Your task to perform on an android device: allow cookies in the chrome app Image 0: 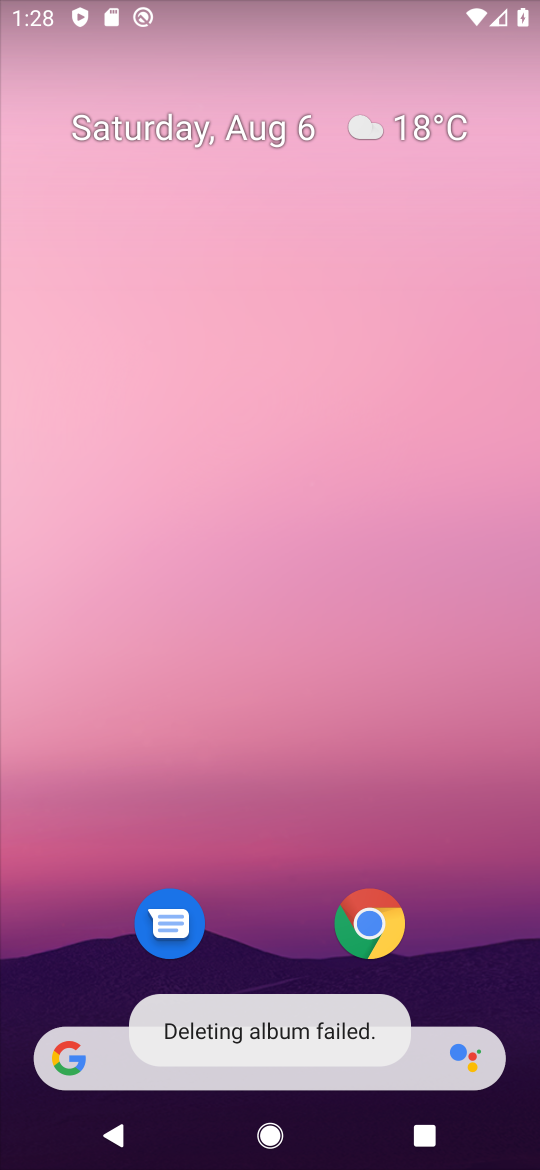
Step 0: click (204, 212)
Your task to perform on an android device: allow cookies in the chrome app Image 1: 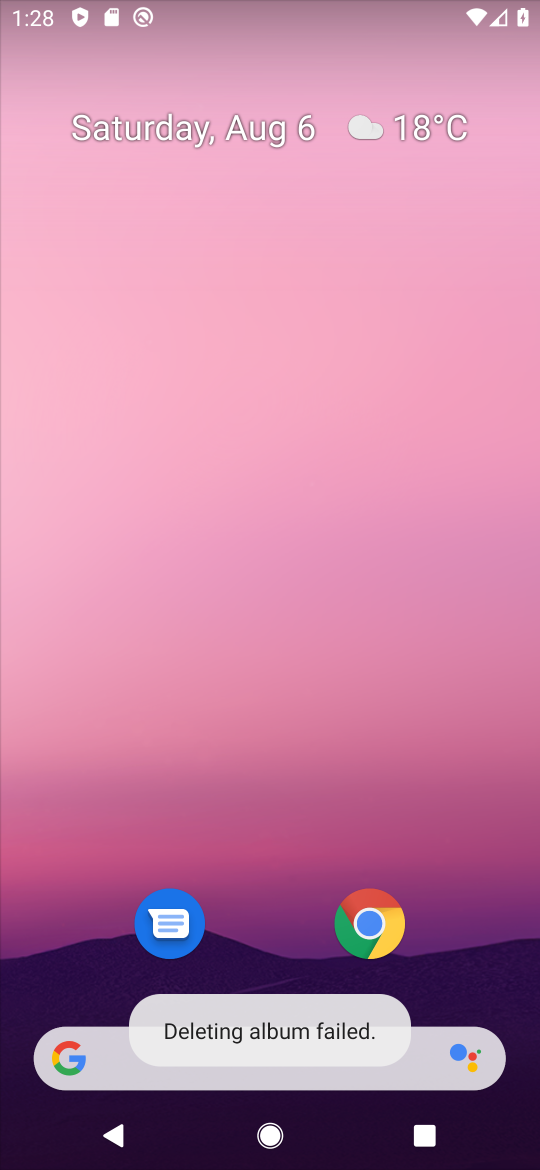
Step 1: drag from (266, 954) to (285, 240)
Your task to perform on an android device: allow cookies in the chrome app Image 2: 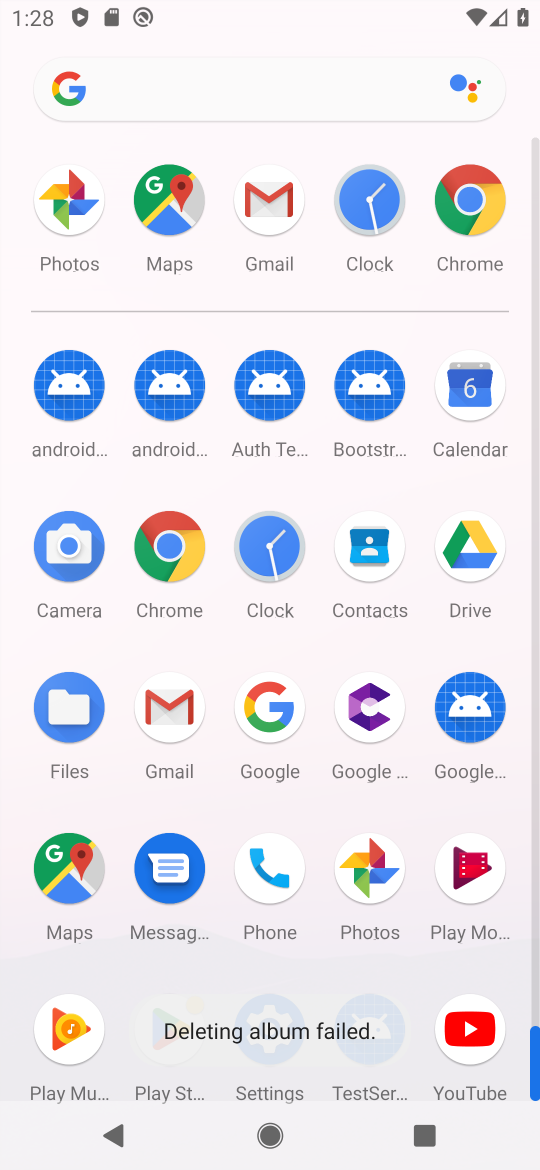
Step 2: click (168, 535)
Your task to perform on an android device: allow cookies in the chrome app Image 3: 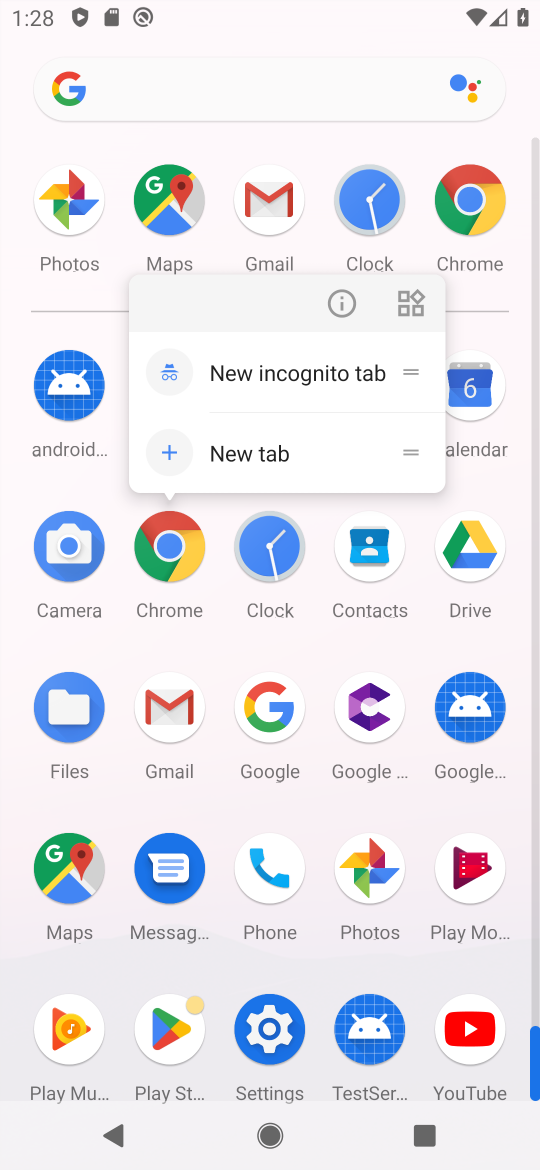
Step 3: click (345, 302)
Your task to perform on an android device: allow cookies in the chrome app Image 4: 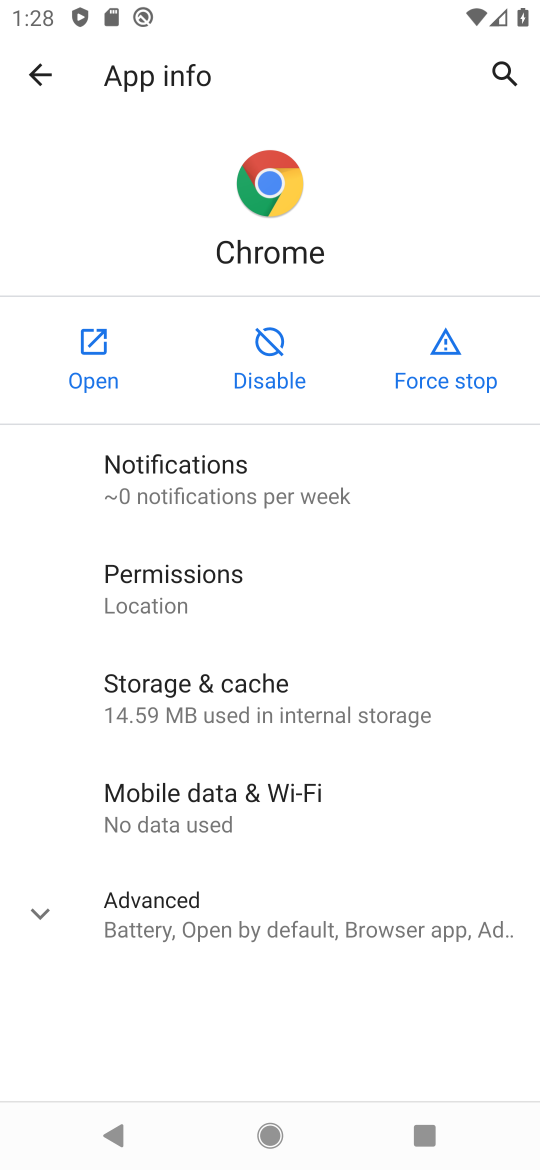
Step 4: click (119, 339)
Your task to perform on an android device: allow cookies in the chrome app Image 5: 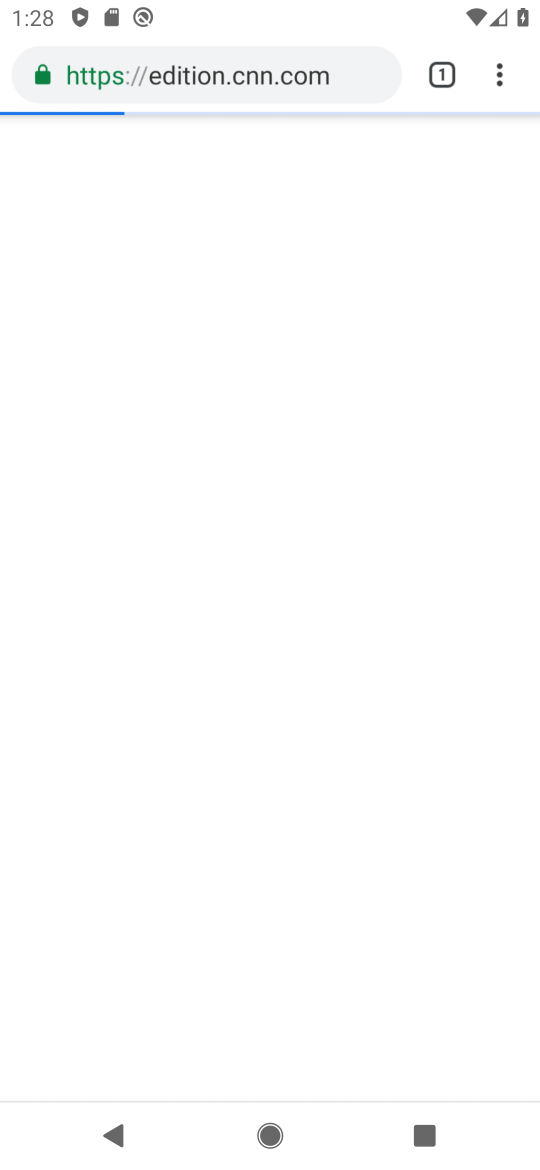
Step 5: drag from (252, 698) to (252, 483)
Your task to perform on an android device: allow cookies in the chrome app Image 6: 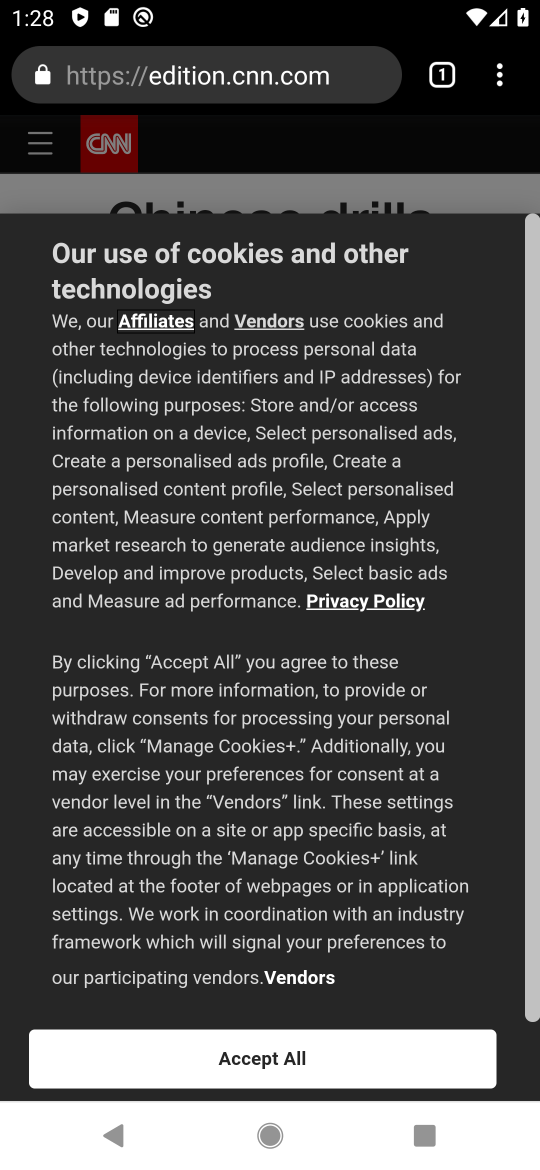
Step 6: drag from (497, 74) to (271, 972)
Your task to perform on an android device: allow cookies in the chrome app Image 7: 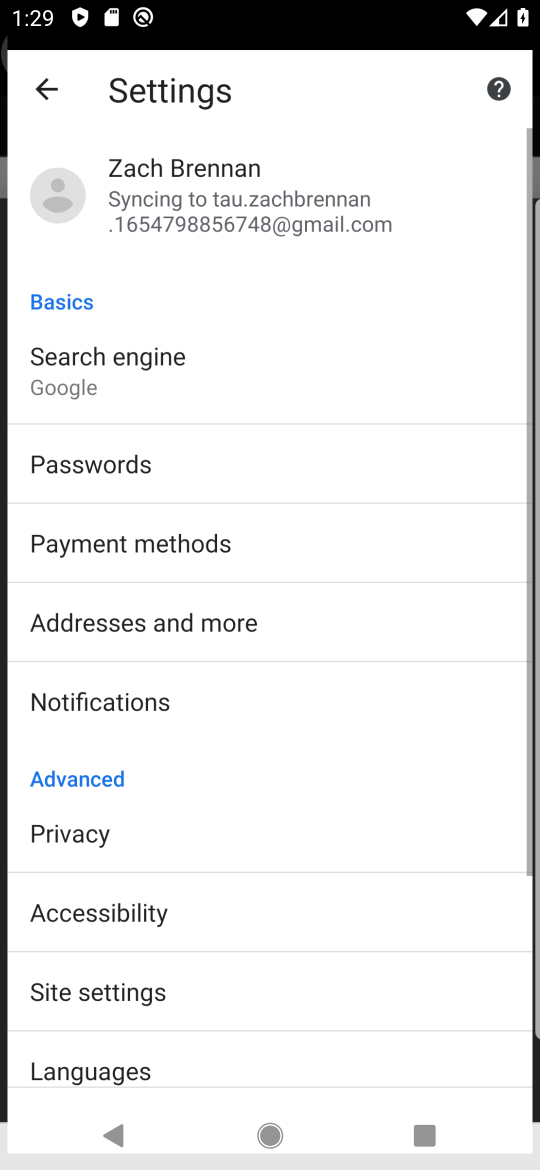
Step 7: drag from (266, 942) to (275, 446)
Your task to perform on an android device: allow cookies in the chrome app Image 8: 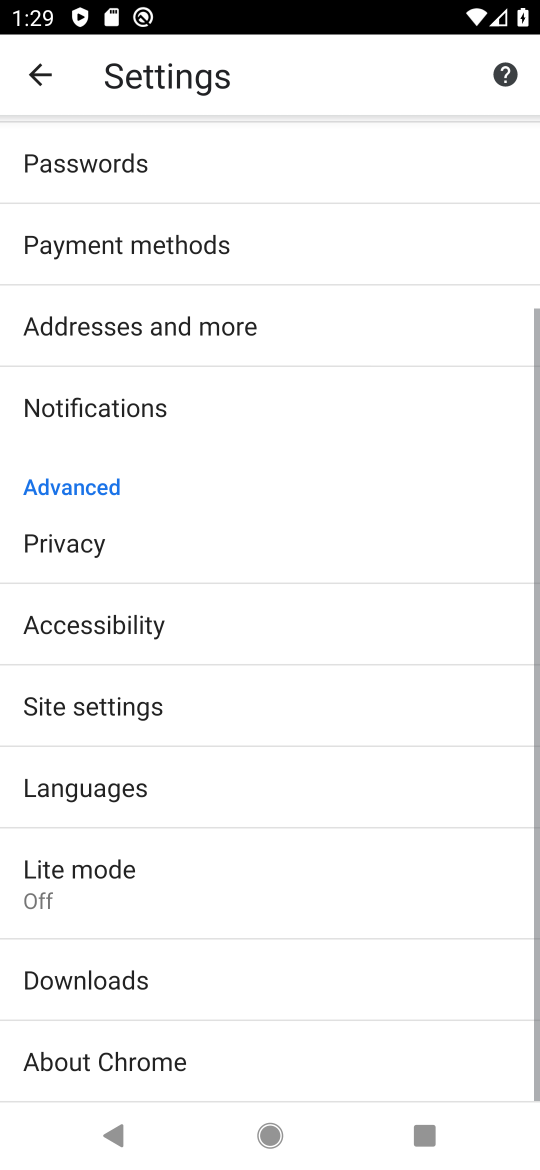
Step 8: drag from (223, 898) to (268, 532)
Your task to perform on an android device: allow cookies in the chrome app Image 9: 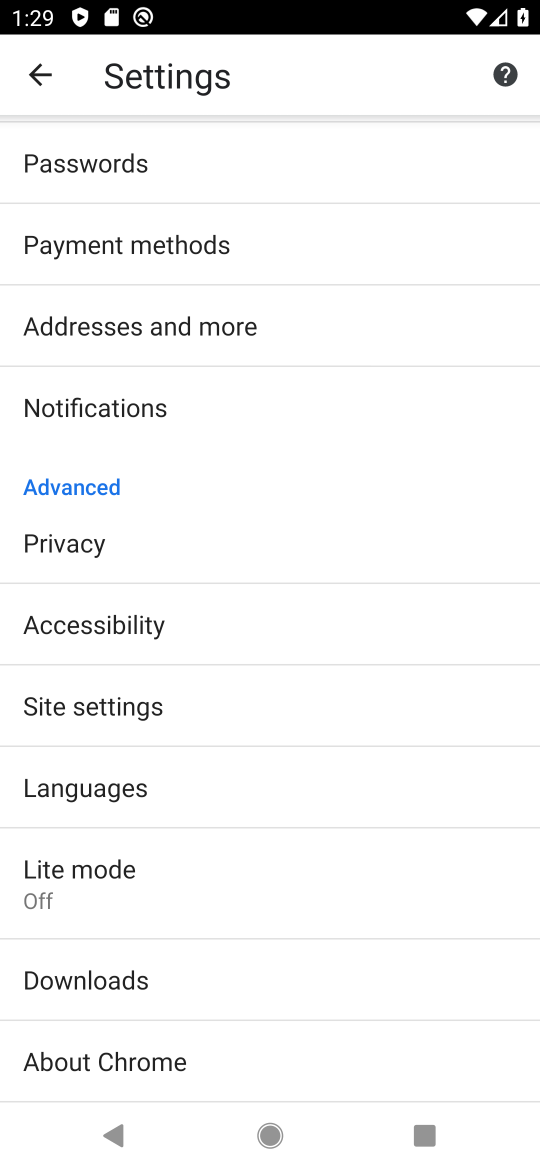
Step 9: click (151, 713)
Your task to perform on an android device: allow cookies in the chrome app Image 10: 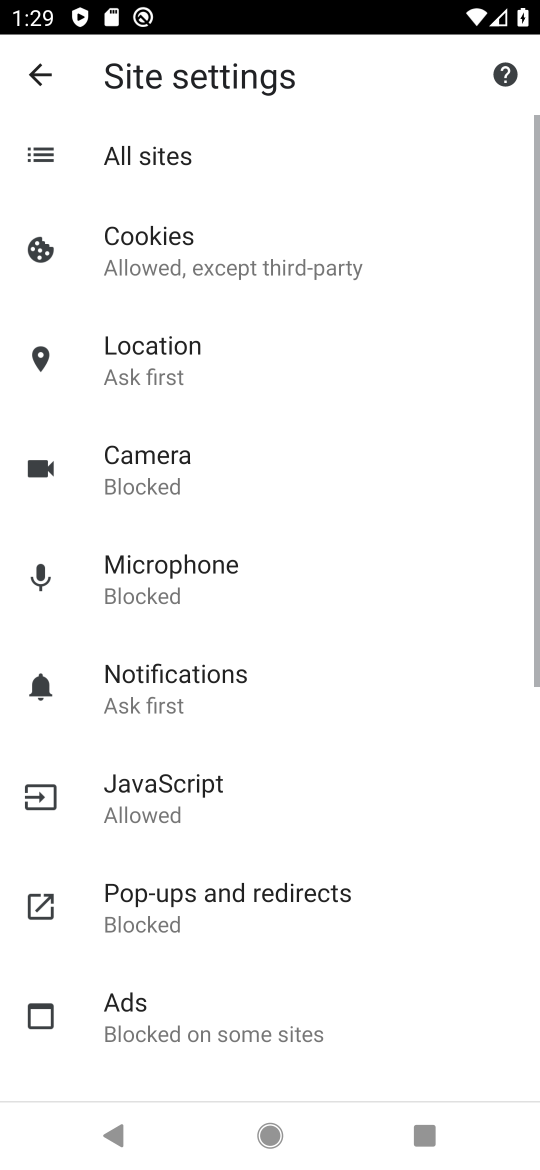
Step 10: drag from (293, 762) to (309, 368)
Your task to perform on an android device: allow cookies in the chrome app Image 11: 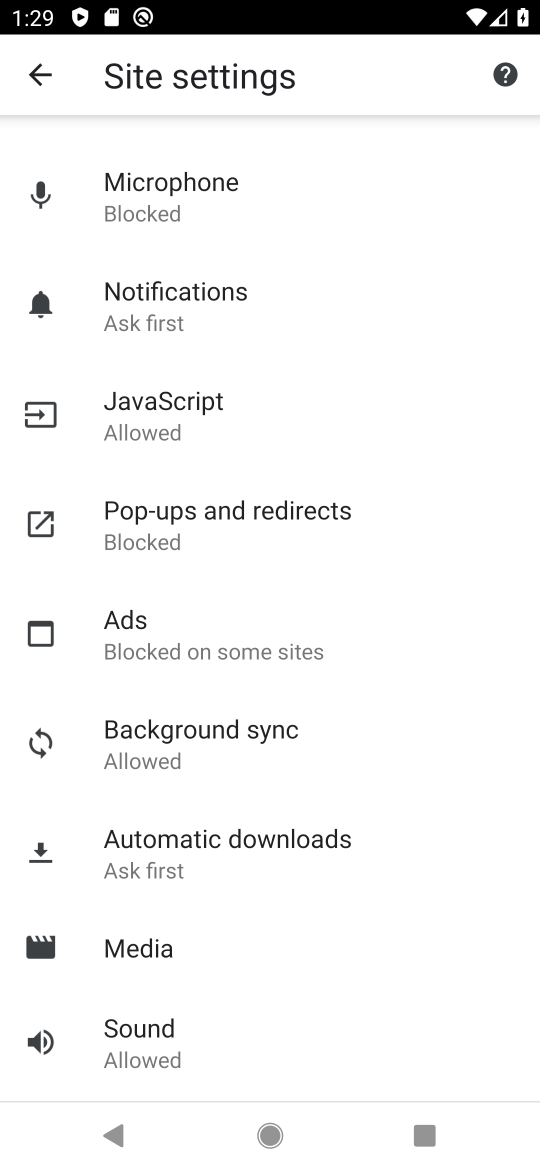
Step 11: drag from (271, 867) to (362, 357)
Your task to perform on an android device: allow cookies in the chrome app Image 12: 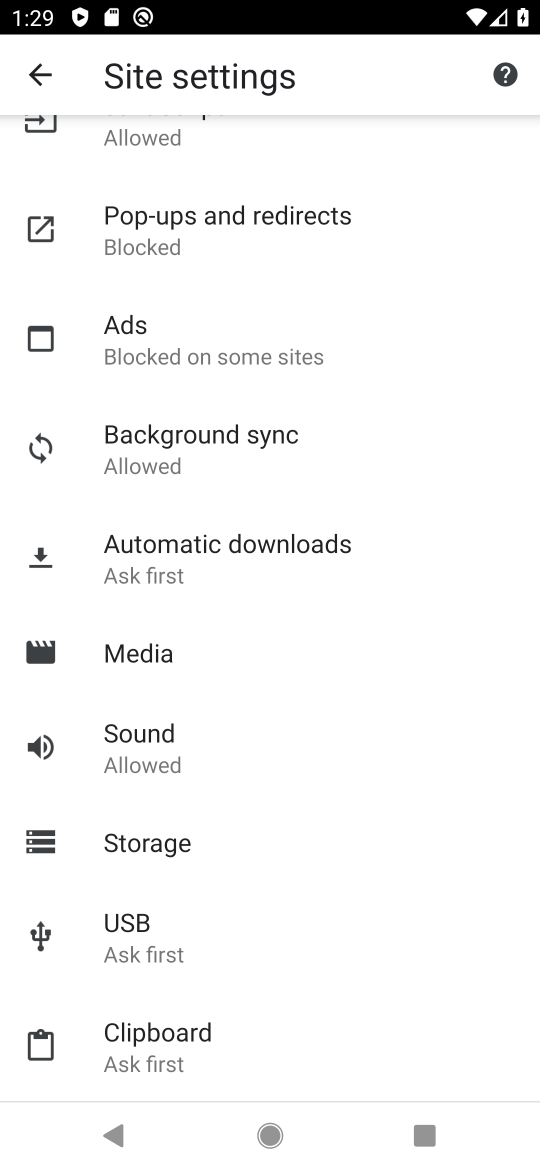
Step 12: drag from (302, 986) to (331, 568)
Your task to perform on an android device: allow cookies in the chrome app Image 13: 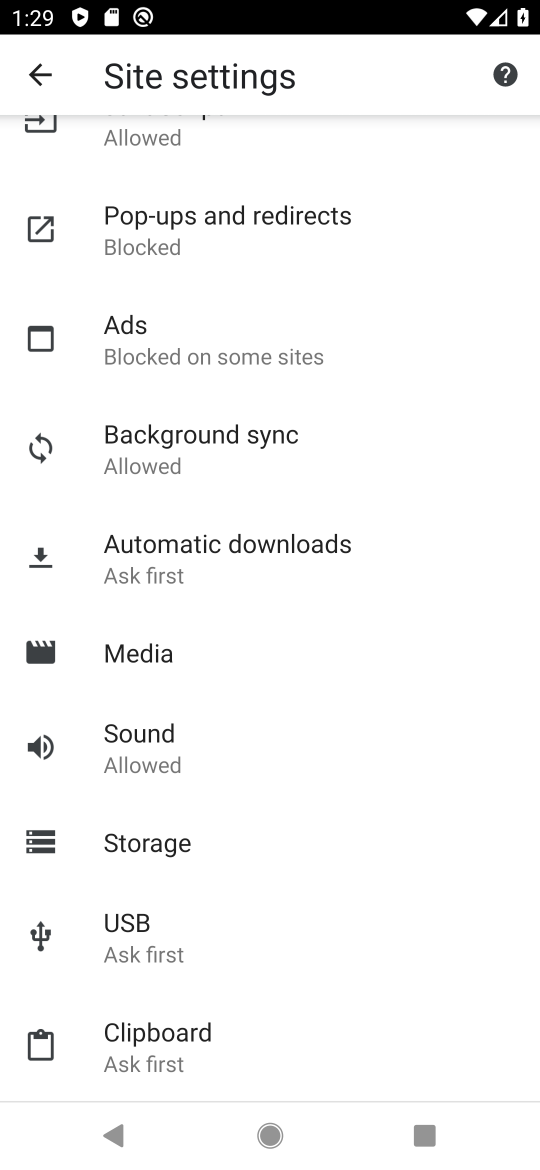
Step 13: drag from (317, 323) to (400, 1156)
Your task to perform on an android device: allow cookies in the chrome app Image 14: 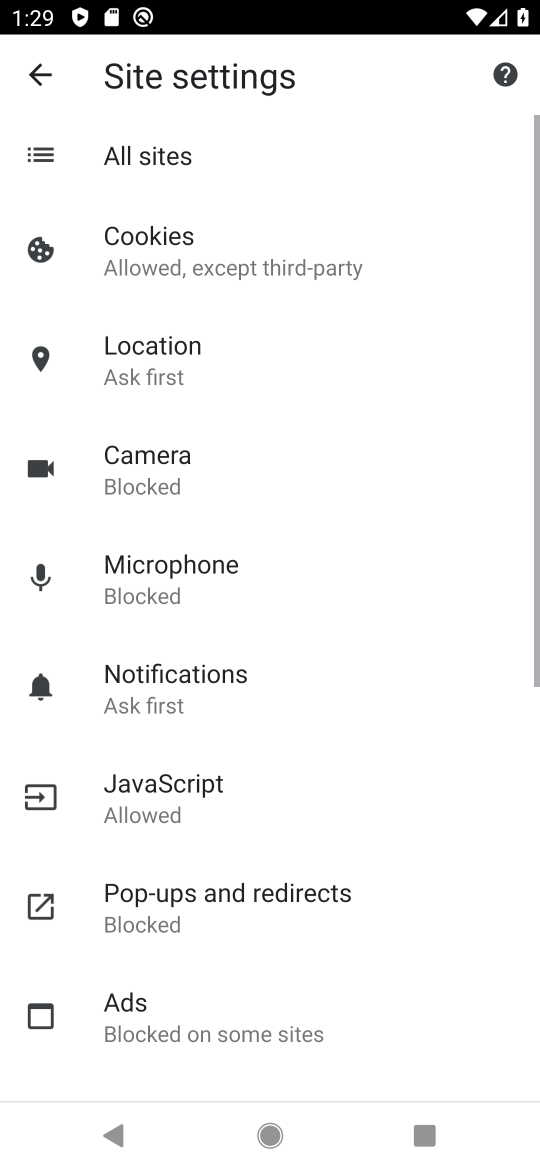
Step 14: click (225, 261)
Your task to perform on an android device: allow cookies in the chrome app Image 15: 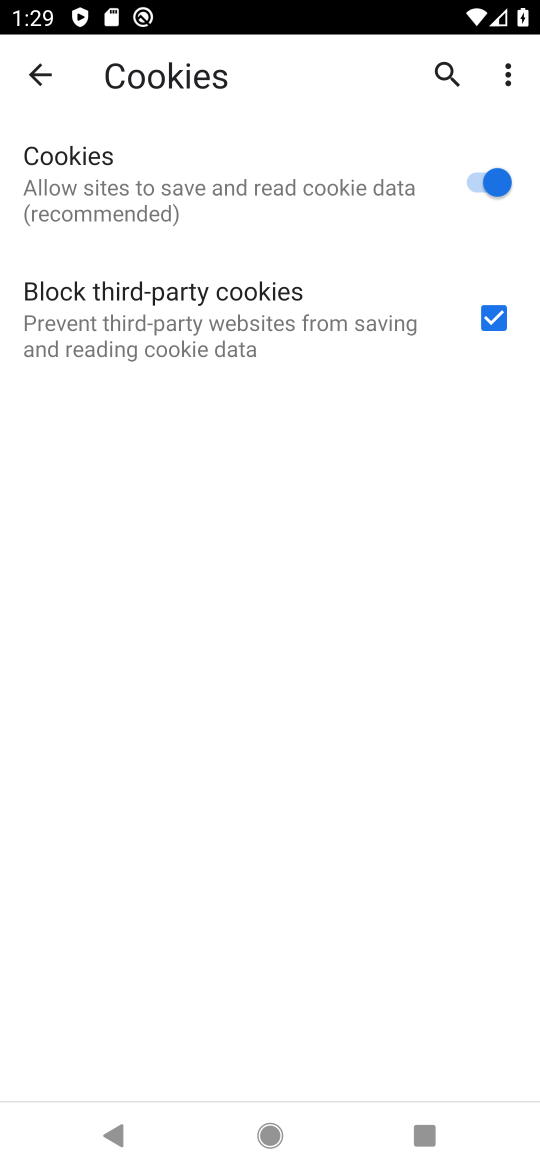
Step 15: task complete